Your task to perform on an android device: set an alarm Image 0: 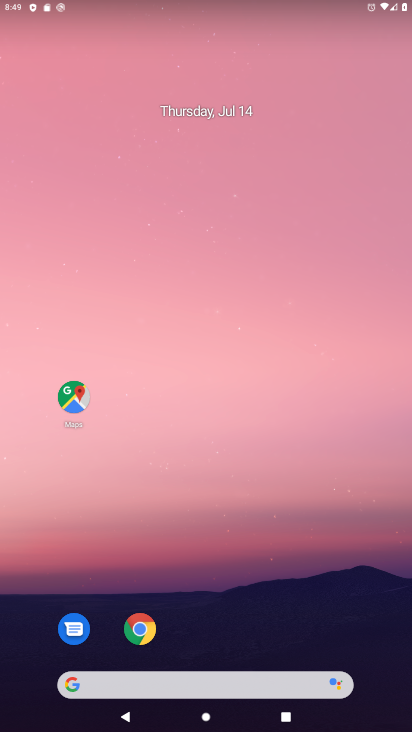
Step 0: drag from (260, 613) to (235, 133)
Your task to perform on an android device: set an alarm Image 1: 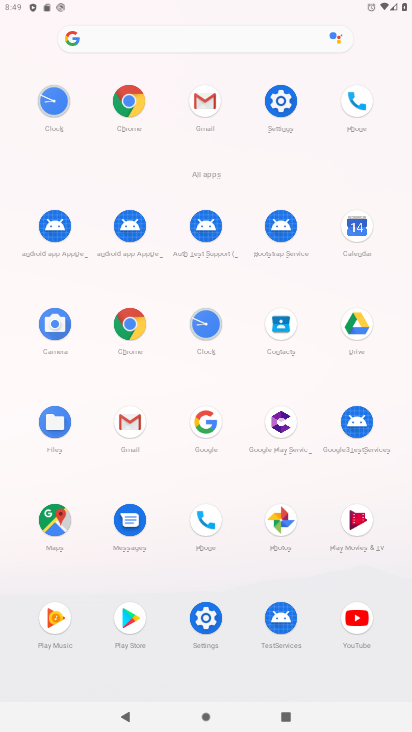
Step 1: click (58, 104)
Your task to perform on an android device: set an alarm Image 2: 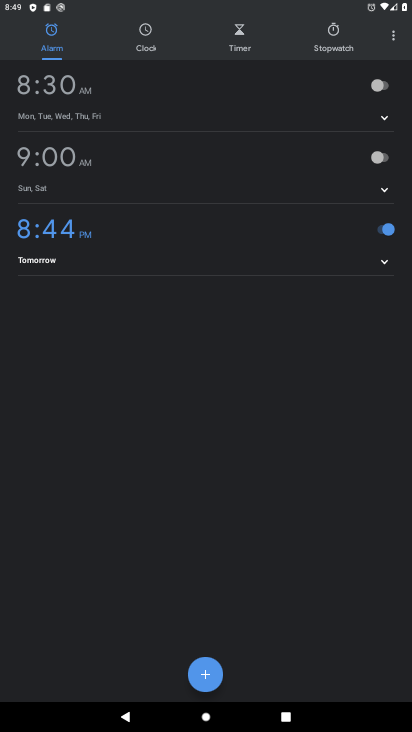
Step 2: click (198, 665)
Your task to perform on an android device: set an alarm Image 3: 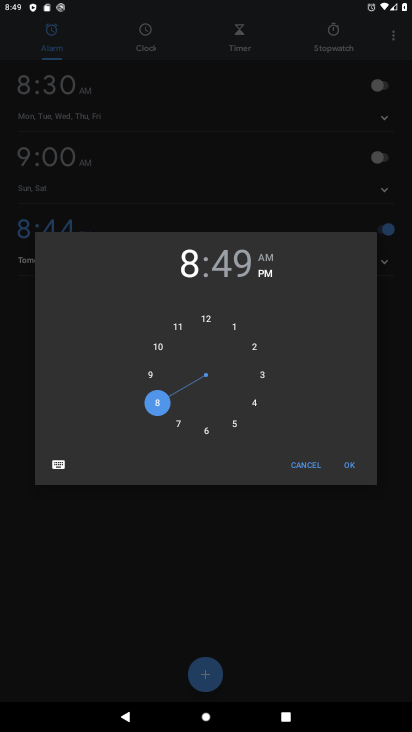
Step 3: click (345, 468)
Your task to perform on an android device: set an alarm Image 4: 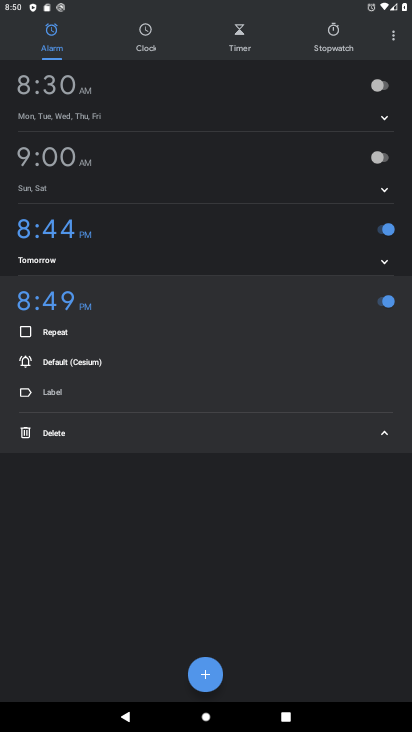
Step 4: click (385, 439)
Your task to perform on an android device: set an alarm Image 5: 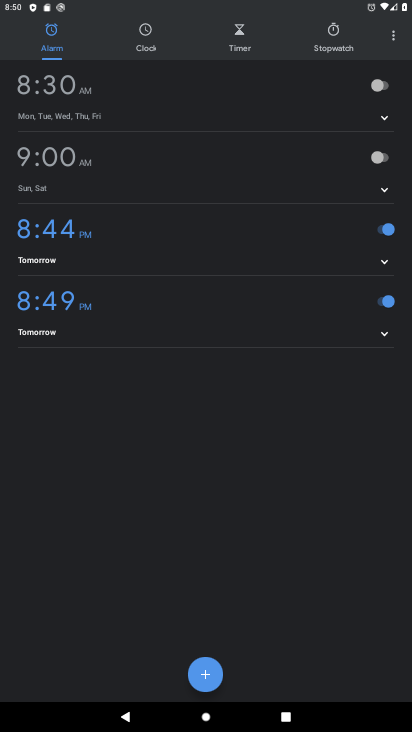
Step 5: task complete